Your task to perform on an android device: Open Yahoo.com Image 0: 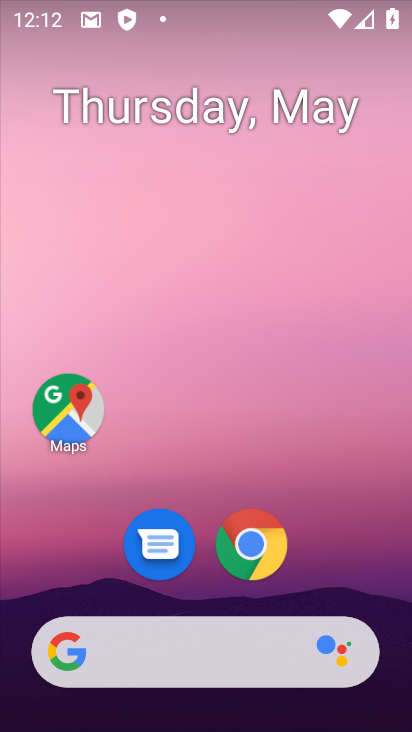
Step 0: click (223, 644)
Your task to perform on an android device: Open Yahoo.com Image 1: 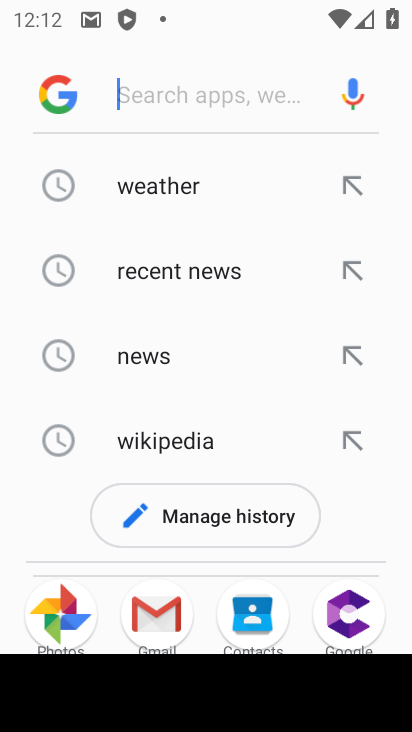
Step 1: type "yahoo.com"
Your task to perform on an android device: Open Yahoo.com Image 2: 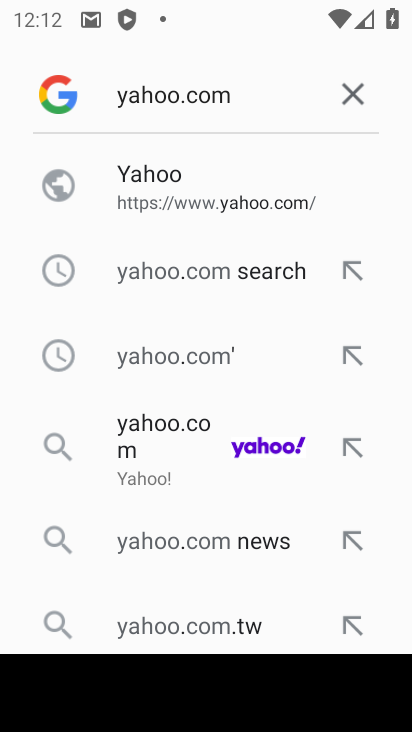
Step 2: click (270, 168)
Your task to perform on an android device: Open Yahoo.com Image 3: 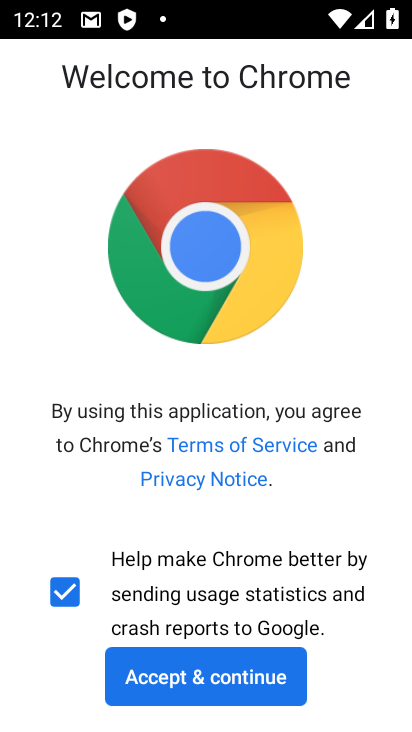
Step 3: click (248, 689)
Your task to perform on an android device: Open Yahoo.com Image 4: 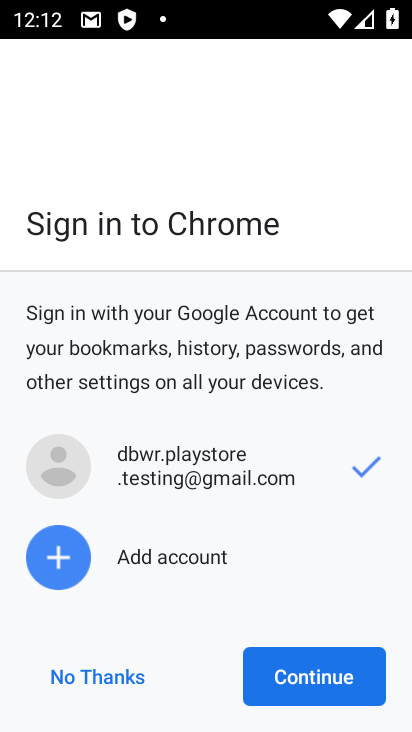
Step 4: click (306, 690)
Your task to perform on an android device: Open Yahoo.com Image 5: 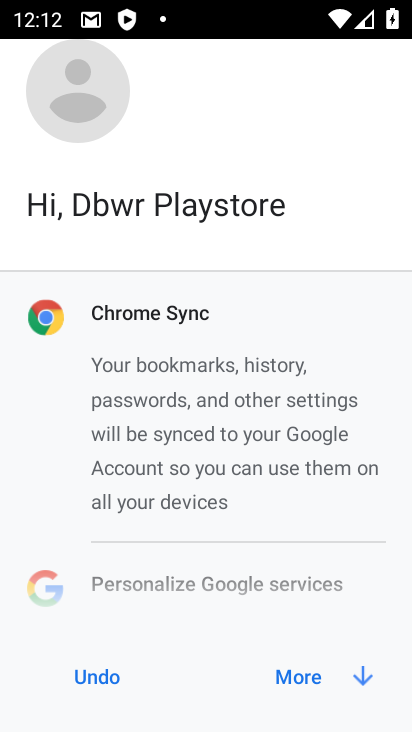
Step 5: click (323, 669)
Your task to perform on an android device: Open Yahoo.com Image 6: 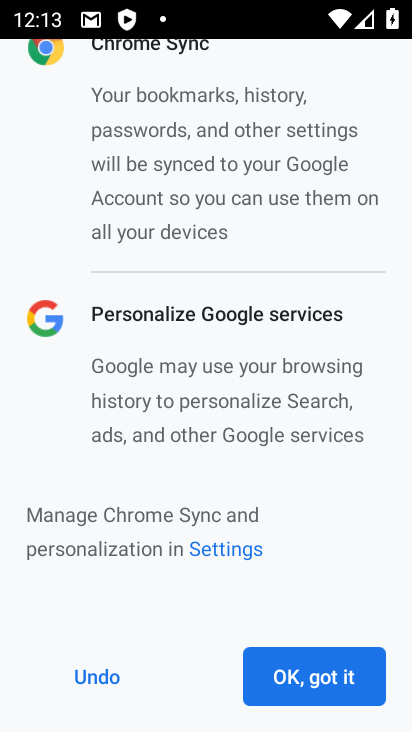
Step 6: click (322, 671)
Your task to perform on an android device: Open Yahoo.com Image 7: 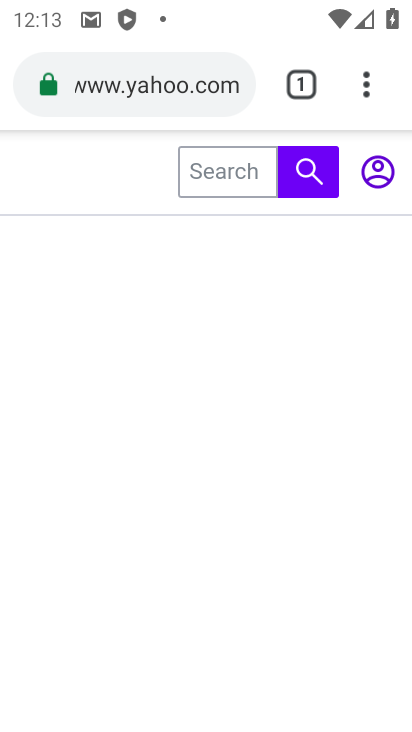
Step 7: task complete